Your task to perform on an android device: set an alarm Image 0: 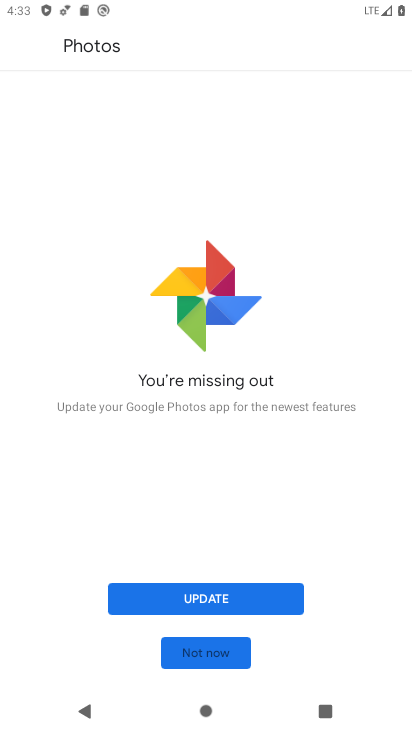
Step 0: press home button
Your task to perform on an android device: set an alarm Image 1: 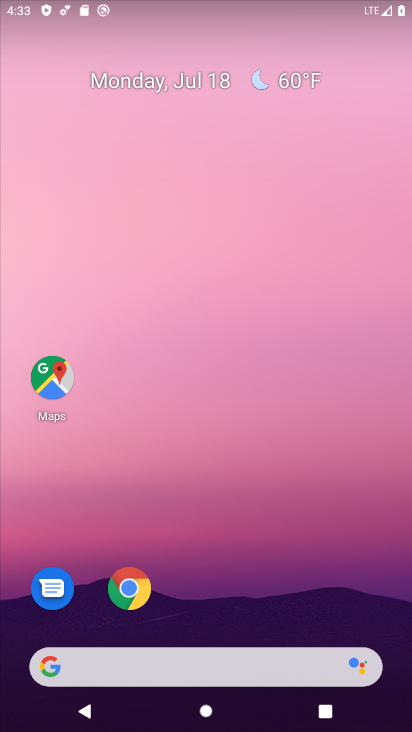
Step 1: drag from (231, 632) to (301, 81)
Your task to perform on an android device: set an alarm Image 2: 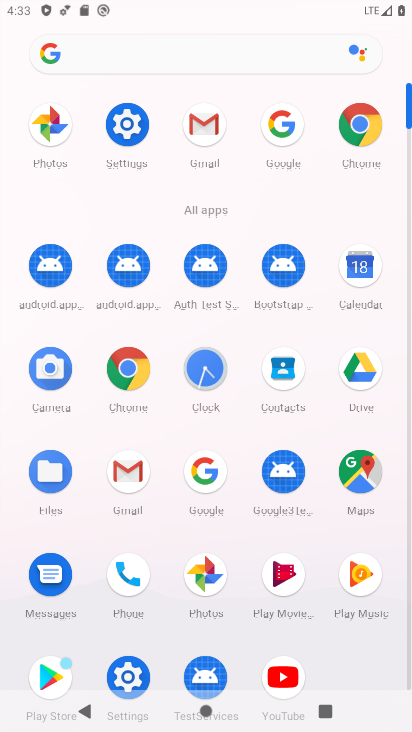
Step 2: click (204, 361)
Your task to perform on an android device: set an alarm Image 3: 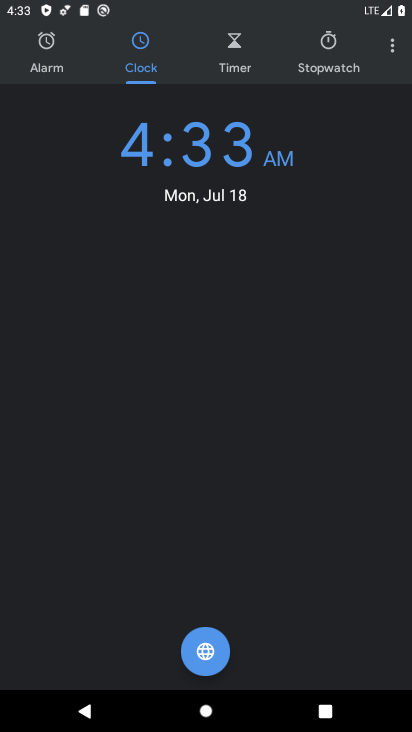
Step 3: click (36, 48)
Your task to perform on an android device: set an alarm Image 4: 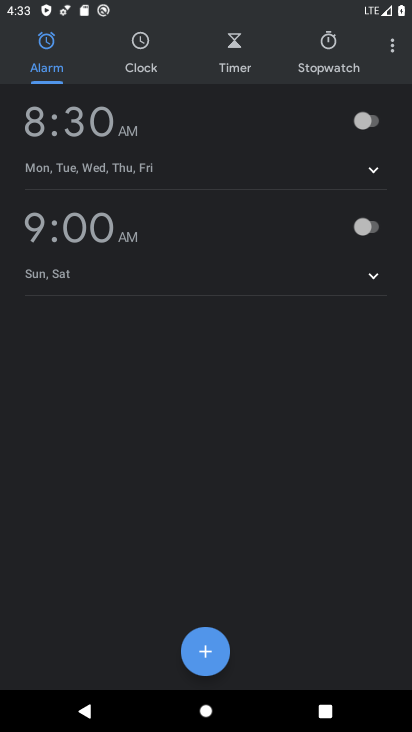
Step 4: click (368, 118)
Your task to perform on an android device: set an alarm Image 5: 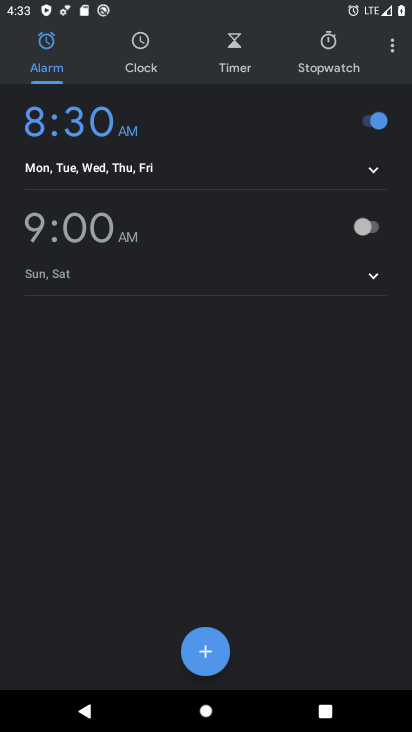
Step 5: click (371, 229)
Your task to perform on an android device: set an alarm Image 6: 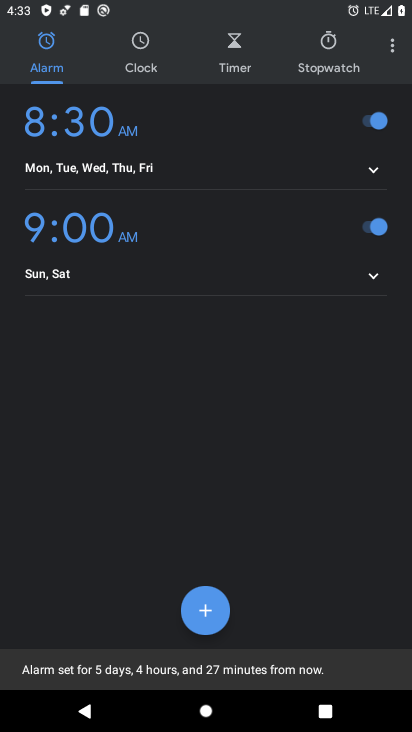
Step 6: task complete